Your task to perform on an android device: What is the recent news? Image 0: 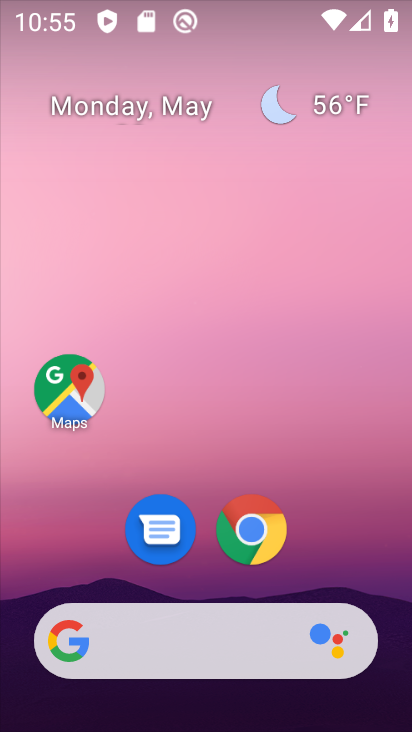
Step 0: drag from (323, 542) to (304, 196)
Your task to perform on an android device: What is the recent news? Image 1: 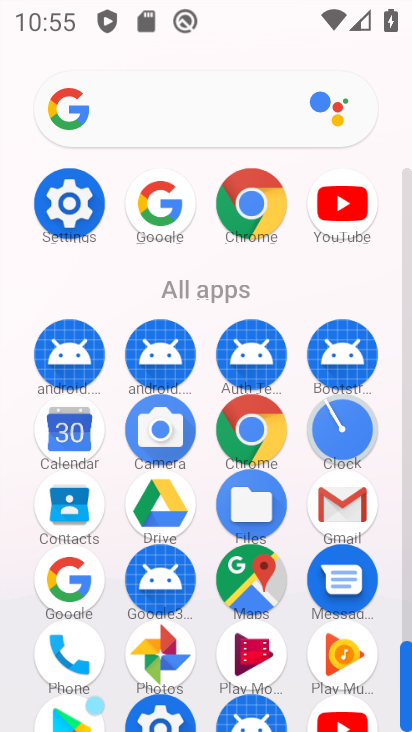
Step 1: drag from (110, 457) to (144, 281)
Your task to perform on an android device: What is the recent news? Image 2: 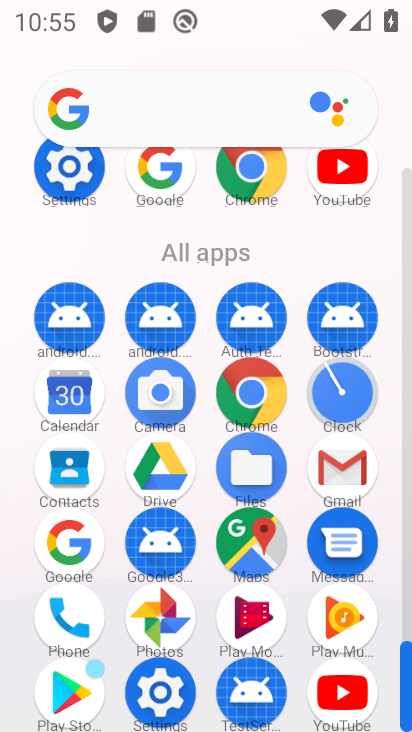
Step 2: click (153, 168)
Your task to perform on an android device: What is the recent news? Image 3: 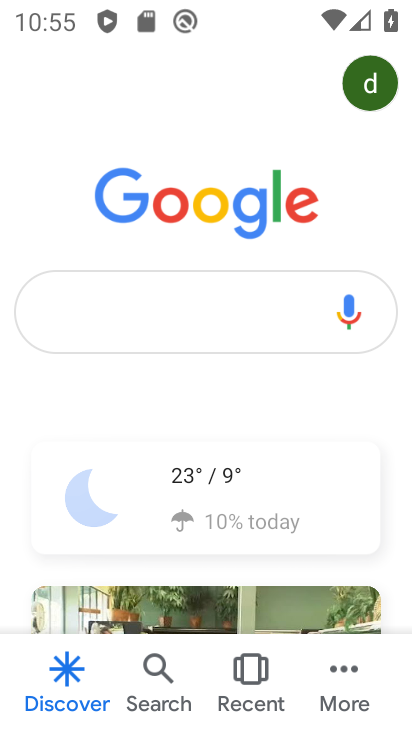
Step 3: click (137, 307)
Your task to perform on an android device: What is the recent news? Image 4: 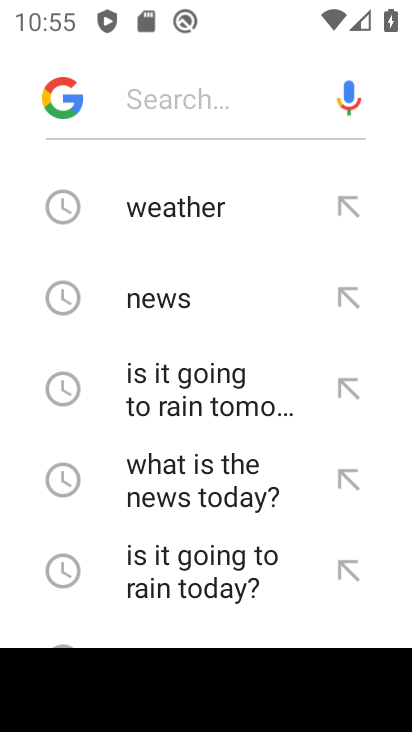
Step 4: type "recent news"
Your task to perform on an android device: What is the recent news? Image 5: 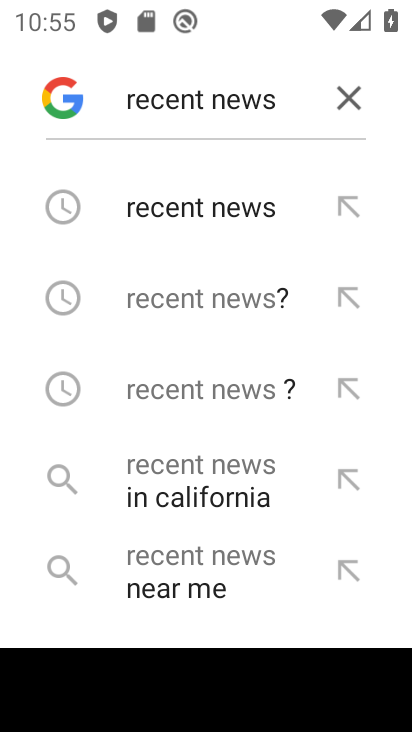
Step 5: click (216, 305)
Your task to perform on an android device: What is the recent news? Image 6: 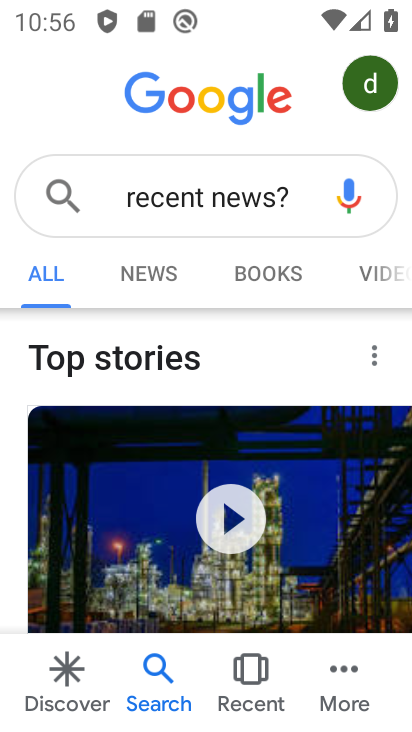
Step 6: drag from (333, 532) to (349, 351)
Your task to perform on an android device: What is the recent news? Image 7: 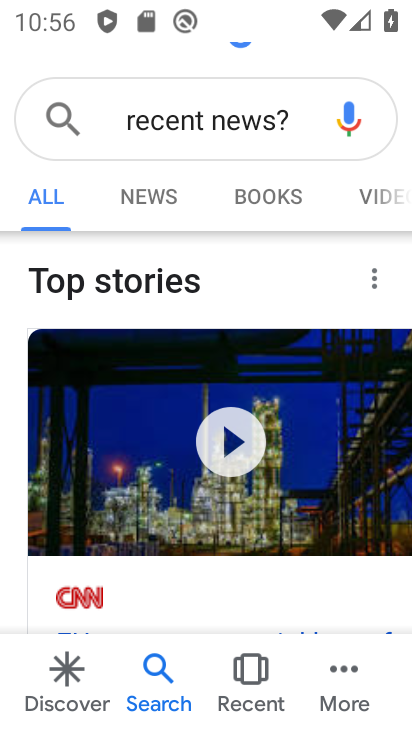
Step 7: drag from (298, 542) to (330, 370)
Your task to perform on an android device: What is the recent news? Image 8: 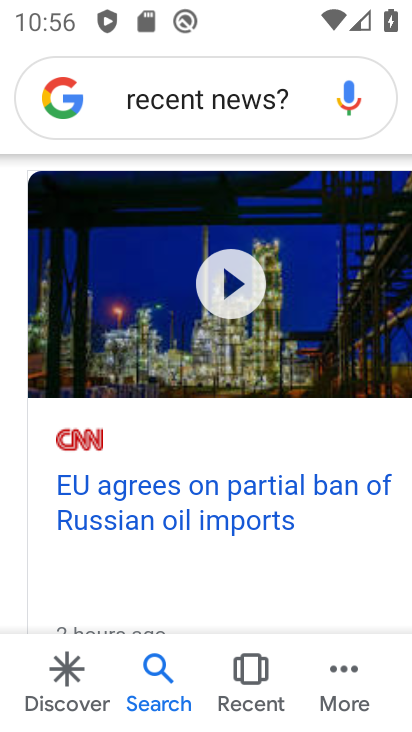
Step 8: click (211, 509)
Your task to perform on an android device: What is the recent news? Image 9: 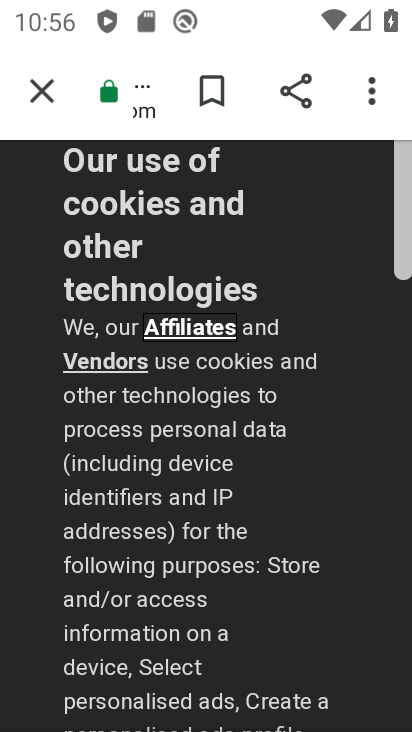
Step 9: task complete